Your task to perform on an android device: Open location settings Image 0: 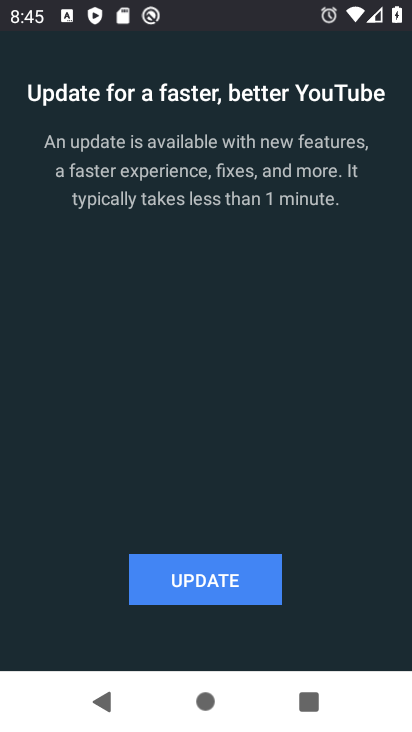
Step 0: press home button
Your task to perform on an android device: Open location settings Image 1: 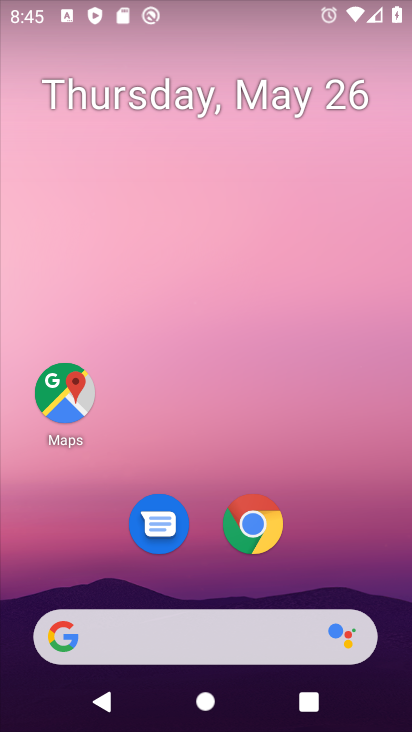
Step 1: drag from (210, 426) to (219, 33)
Your task to perform on an android device: Open location settings Image 2: 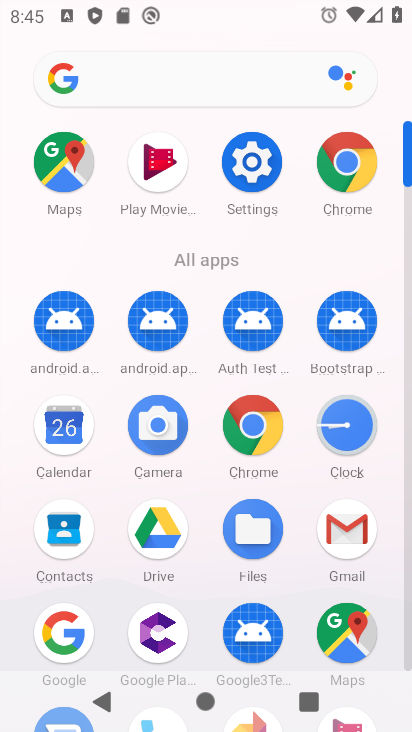
Step 2: click (246, 170)
Your task to perform on an android device: Open location settings Image 3: 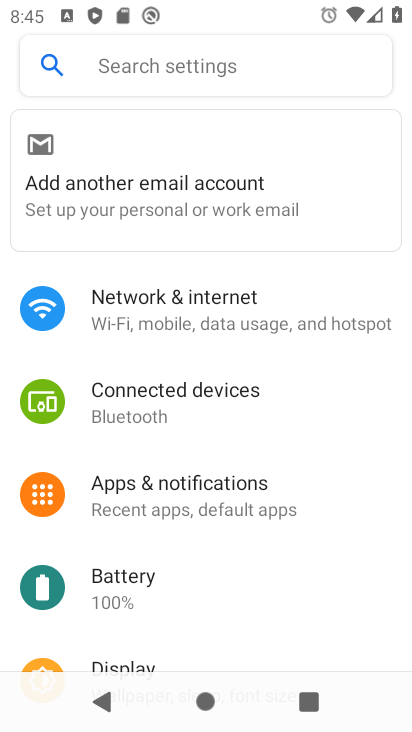
Step 3: drag from (272, 578) to (215, 144)
Your task to perform on an android device: Open location settings Image 4: 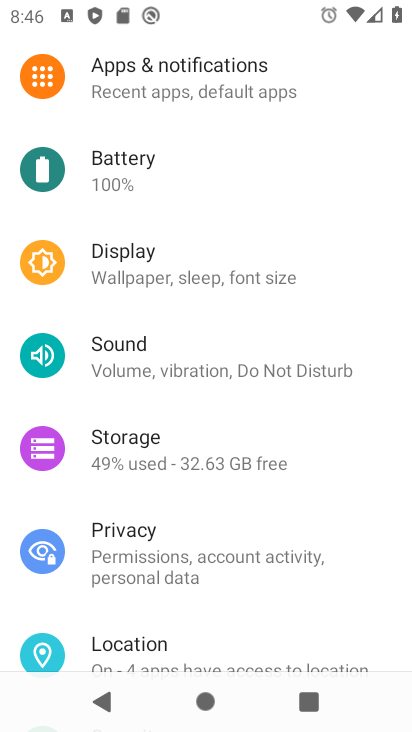
Step 4: click (143, 644)
Your task to perform on an android device: Open location settings Image 5: 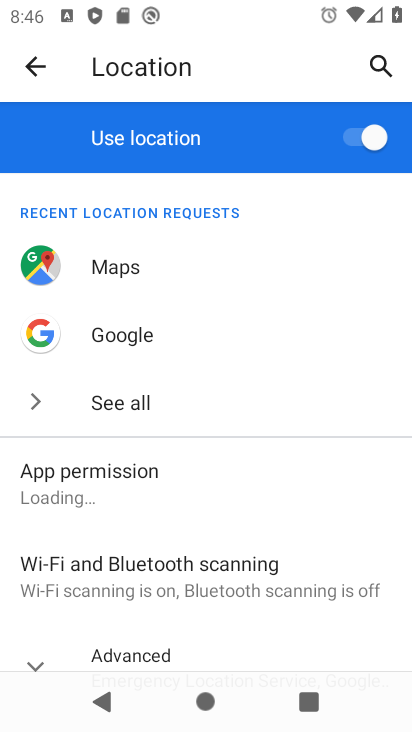
Step 5: task complete